Your task to perform on an android device: Open network settings Image 0: 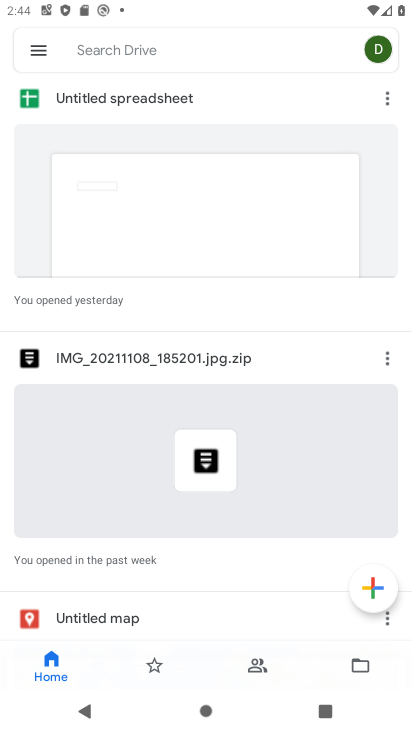
Step 0: press home button
Your task to perform on an android device: Open network settings Image 1: 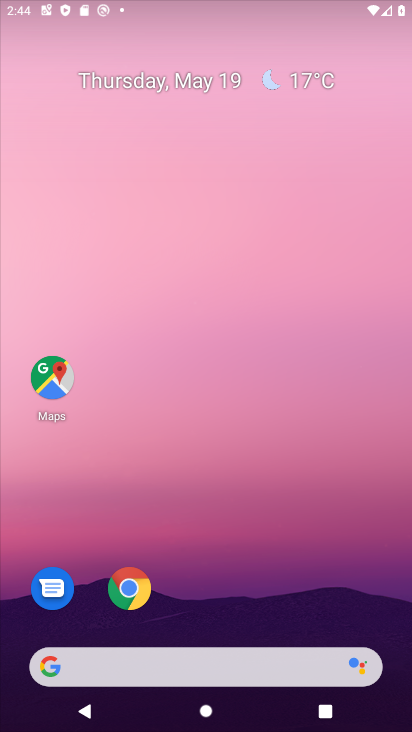
Step 1: drag from (262, 451) to (253, 151)
Your task to perform on an android device: Open network settings Image 2: 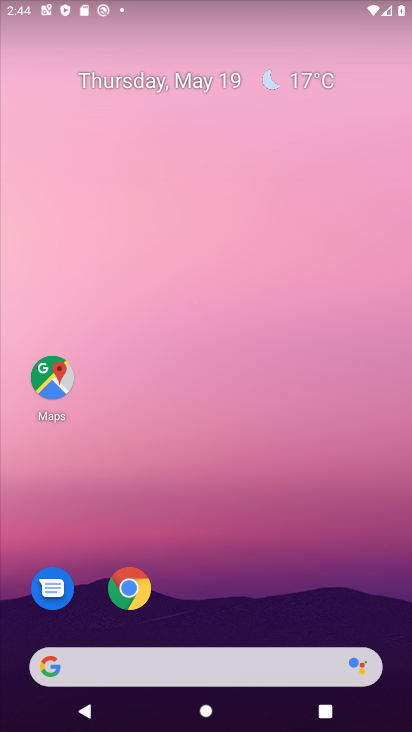
Step 2: drag from (286, 517) to (257, 100)
Your task to perform on an android device: Open network settings Image 3: 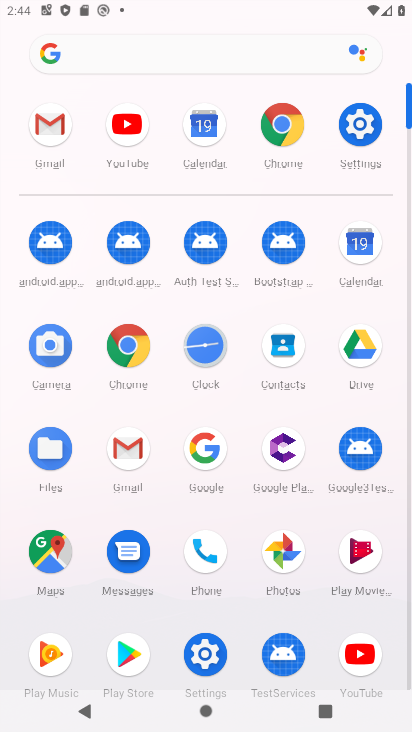
Step 3: click (370, 119)
Your task to perform on an android device: Open network settings Image 4: 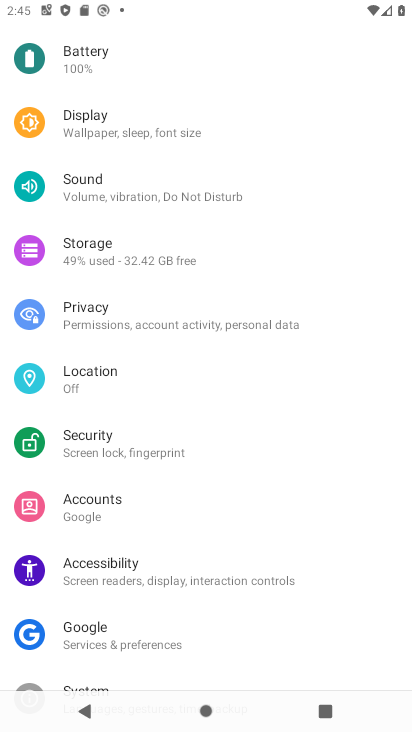
Step 4: drag from (188, 131) to (238, 587)
Your task to perform on an android device: Open network settings Image 5: 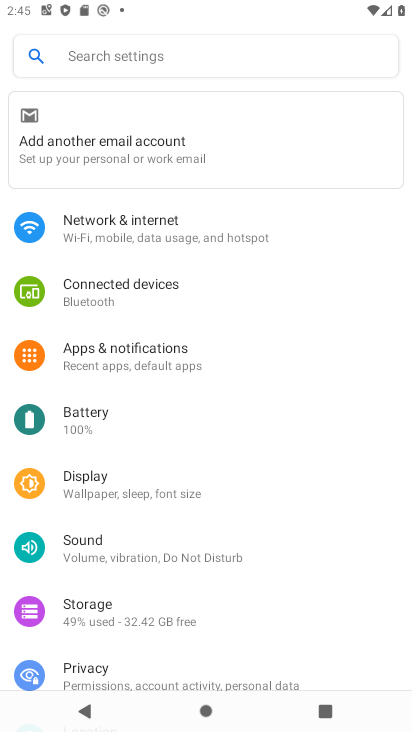
Step 5: click (134, 223)
Your task to perform on an android device: Open network settings Image 6: 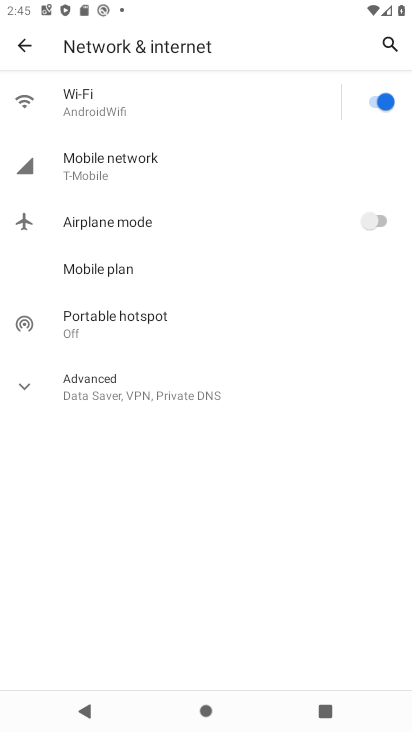
Step 6: click (94, 91)
Your task to perform on an android device: Open network settings Image 7: 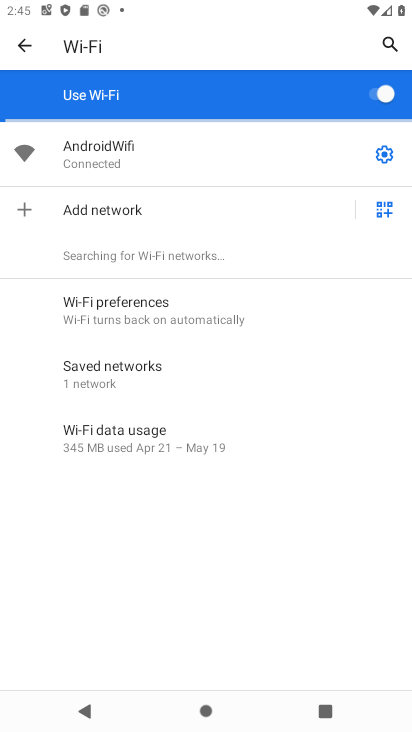
Step 7: click (378, 154)
Your task to perform on an android device: Open network settings Image 8: 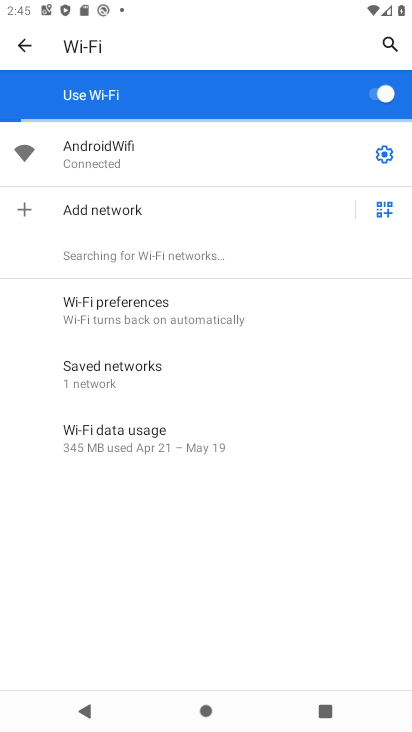
Step 8: click (382, 153)
Your task to perform on an android device: Open network settings Image 9: 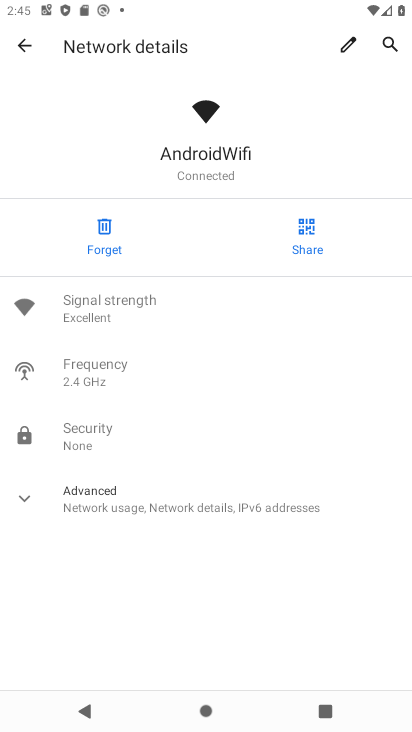
Step 9: task complete